Your task to perform on an android device: Open calendar and show me the fourth week of next month Image 0: 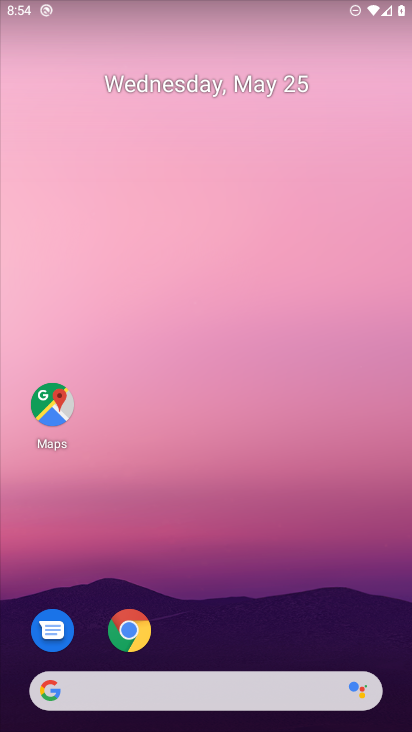
Step 0: drag from (159, 679) to (291, 83)
Your task to perform on an android device: Open calendar and show me the fourth week of next month Image 1: 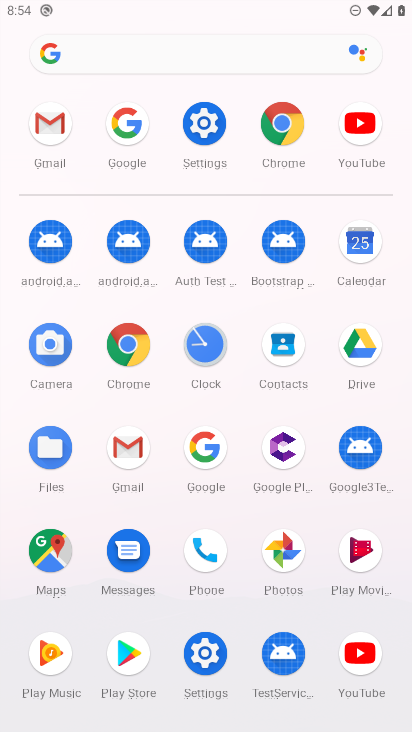
Step 1: click (372, 240)
Your task to perform on an android device: Open calendar and show me the fourth week of next month Image 2: 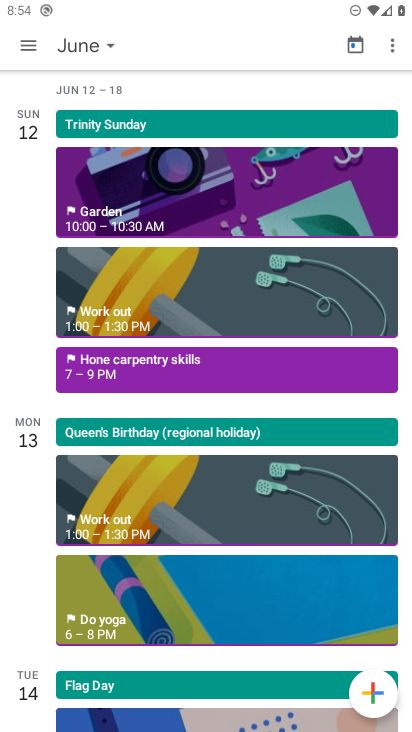
Step 2: click (95, 45)
Your task to perform on an android device: Open calendar and show me the fourth week of next month Image 3: 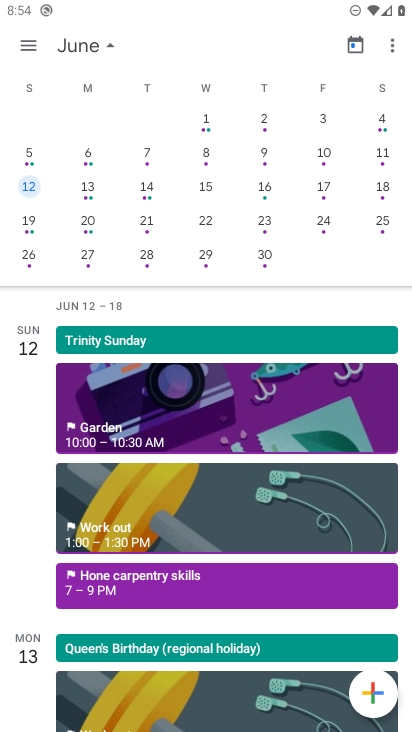
Step 3: click (23, 223)
Your task to perform on an android device: Open calendar and show me the fourth week of next month Image 4: 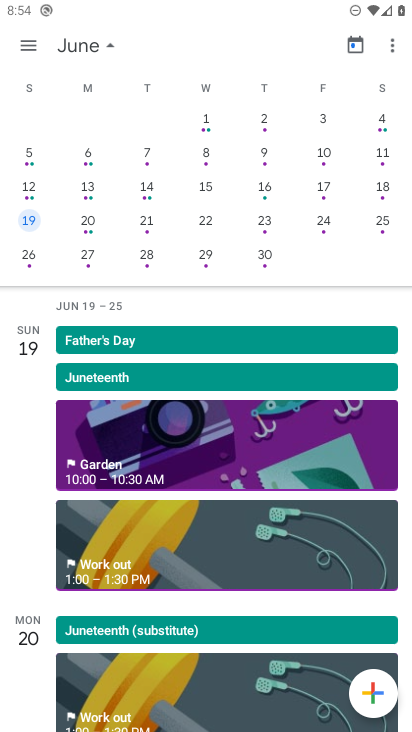
Step 4: task complete